Your task to perform on an android device: move a message to another label in the gmail app Image 0: 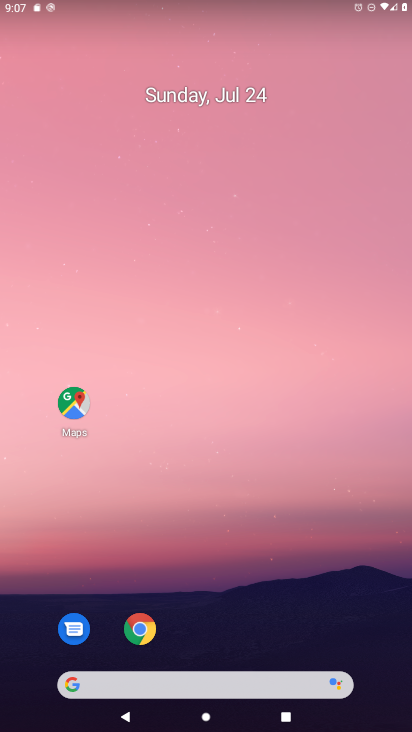
Step 0: drag from (395, 625) to (142, 59)
Your task to perform on an android device: move a message to another label in the gmail app Image 1: 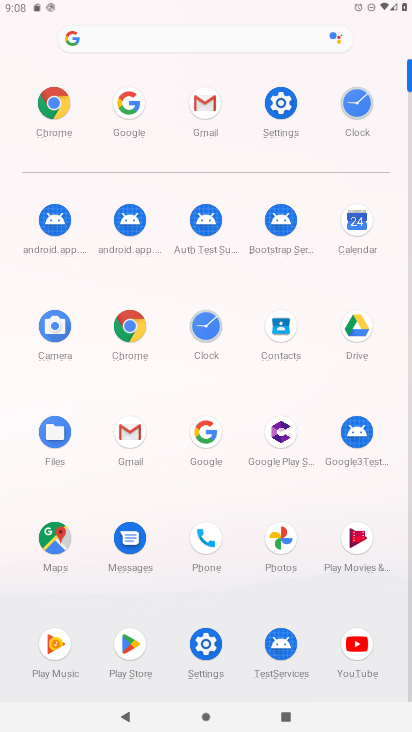
Step 1: click (122, 432)
Your task to perform on an android device: move a message to another label in the gmail app Image 2: 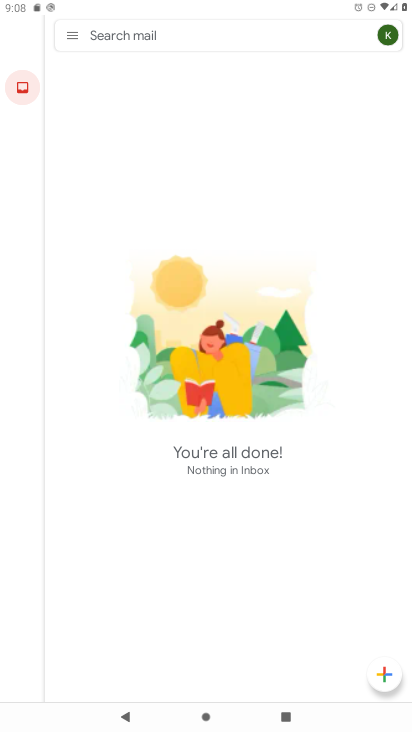
Step 2: task complete